Your task to perform on an android device: toggle notifications settings in the gmail app Image 0: 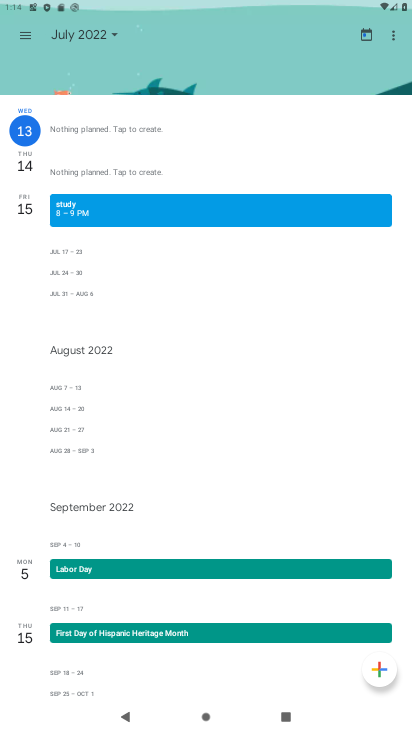
Step 0: press home button
Your task to perform on an android device: toggle notifications settings in the gmail app Image 1: 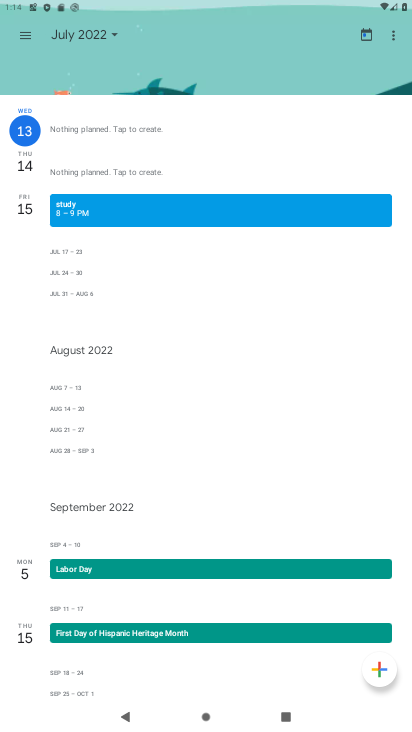
Step 1: drag from (195, 551) to (198, 148)
Your task to perform on an android device: toggle notifications settings in the gmail app Image 2: 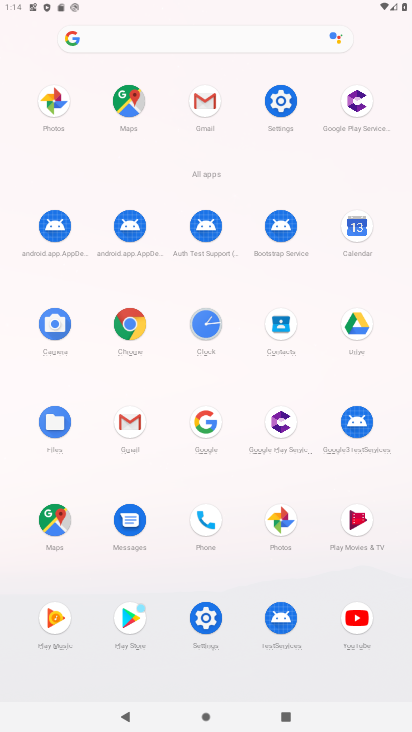
Step 2: drag from (161, 536) to (157, 333)
Your task to perform on an android device: toggle notifications settings in the gmail app Image 3: 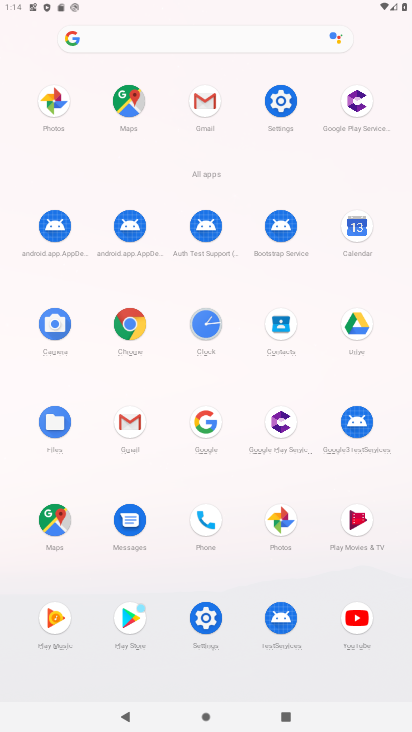
Step 3: click (135, 435)
Your task to perform on an android device: toggle notifications settings in the gmail app Image 4: 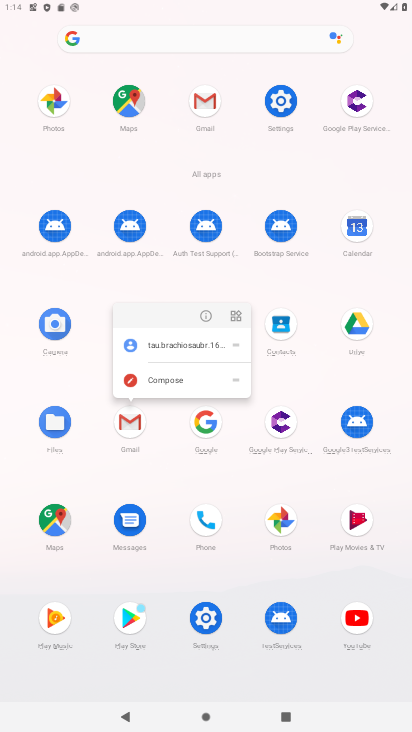
Step 4: click (202, 311)
Your task to perform on an android device: toggle notifications settings in the gmail app Image 5: 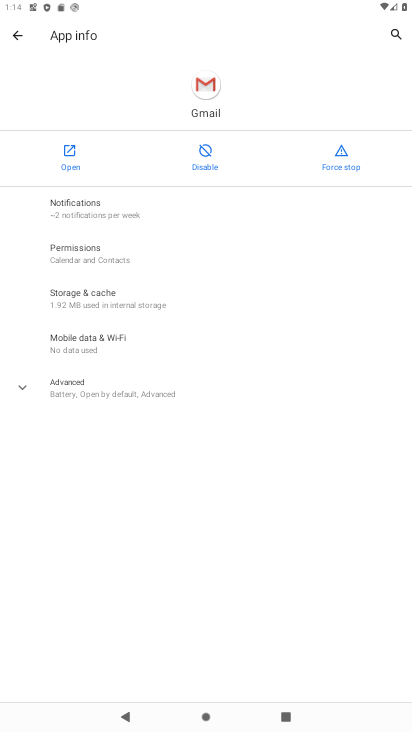
Step 5: click (78, 156)
Your task to perform on an android device: toggle notifications settings in the gmail app Image 6: 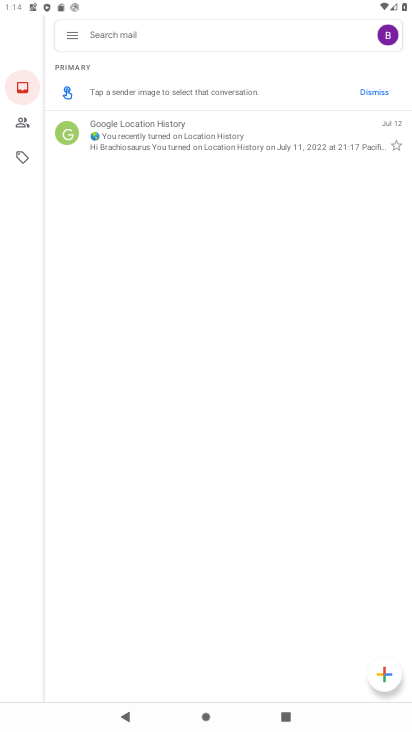
Step 6: drag from (188, 455) to (185, 216)
Your task to perform on an android device: toggle notifications settings in the gmail app Image 7: 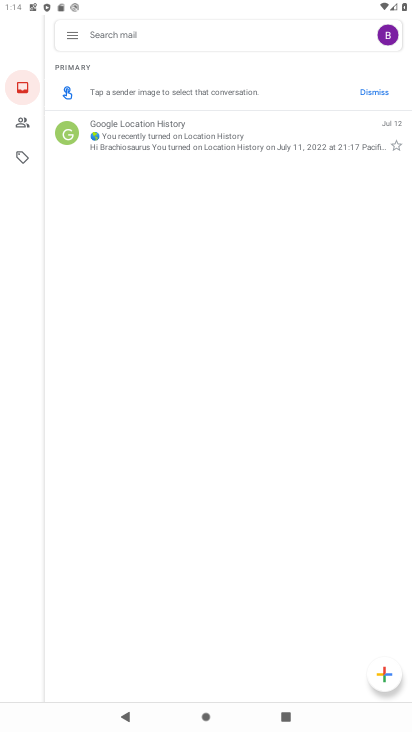
Step 7: click (67, 32)
Your task to perform on an android device: toggle notifications settings in the gmail app Image 8: 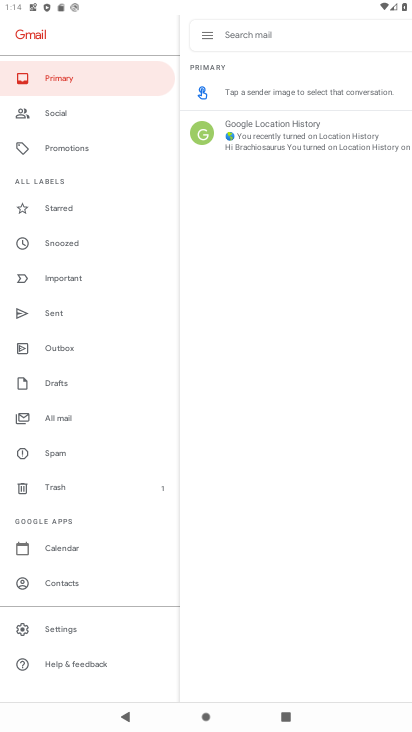
Step 8: click (52, 631)
Your task to perform on an android device: toggle notifications settings in the gmail app Image 9: 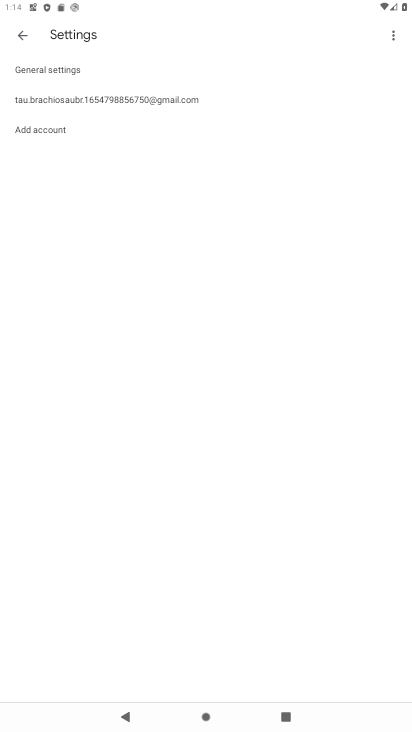
Step 9: drag from (172, 614) to (221, 279)
Your task to perform on an android device: toggle notifications settings in the gmail app Image 10: 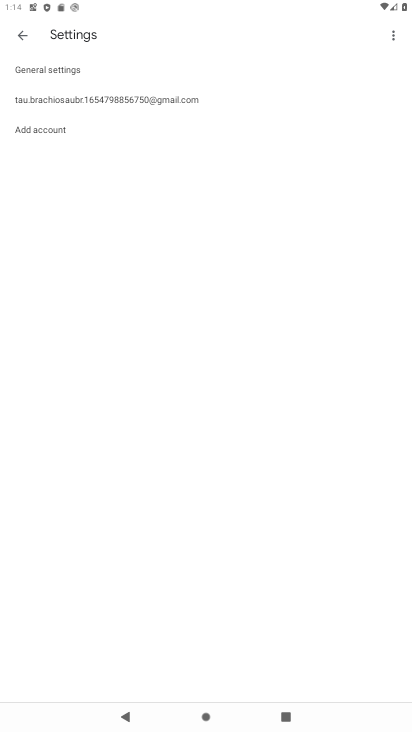
Step 10: drag from (135, 551) to (174, 329)
Your task to perform on an android device: toggle notifications settings in the gmail app Image 11: 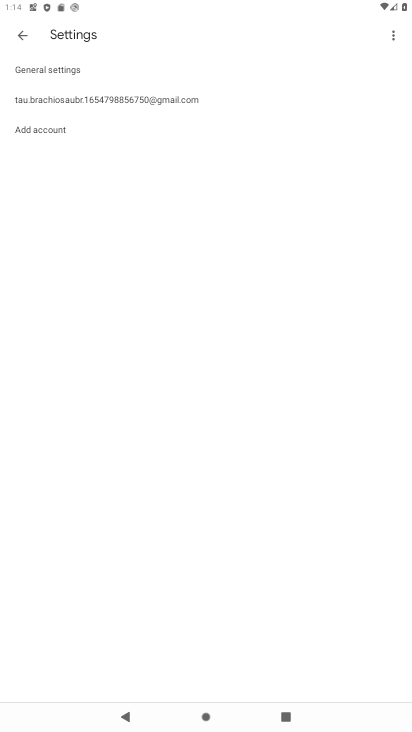
Step 11: click (140, 100)
Your task to perform on an android device: toggle notifications settings in the gmail app Image 12: 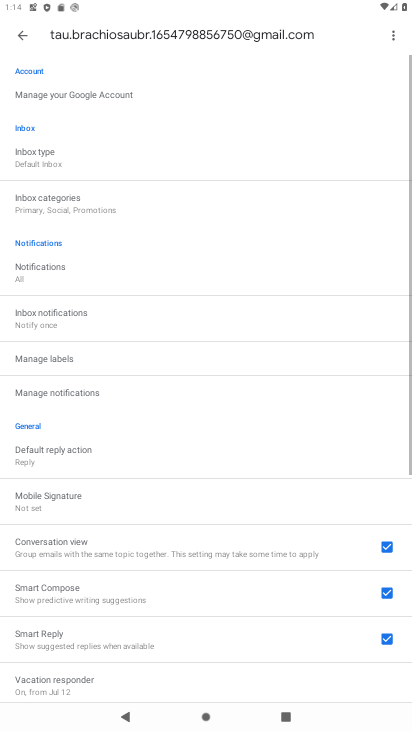
Step 12: drag from (177, 503) to (210, 158)
Your task to perform on an android device: toggle notifications settings in the gmail app Image 13: 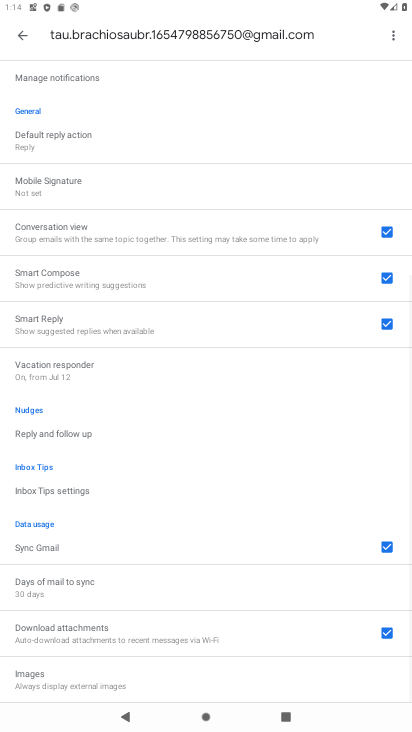
Step 13: drag from (176, 189) to (191, 484)
Your task to perform on an android device: toggle notifications settings in the gmail app Image 14: 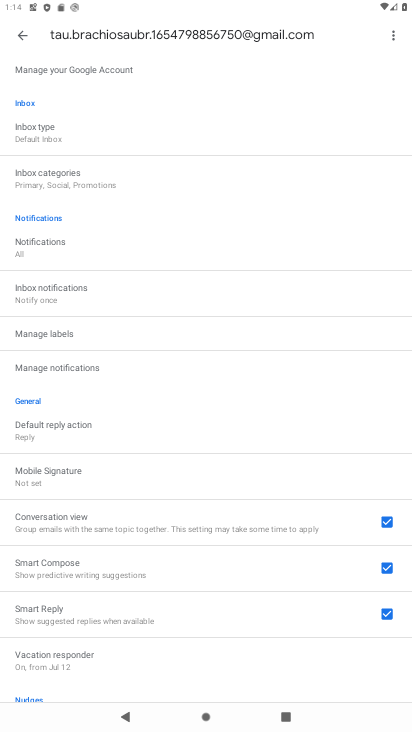
Step 14: click (79, 364)
Your task to perform on an android device: toggle notifications settings in the gmail app Image 15: 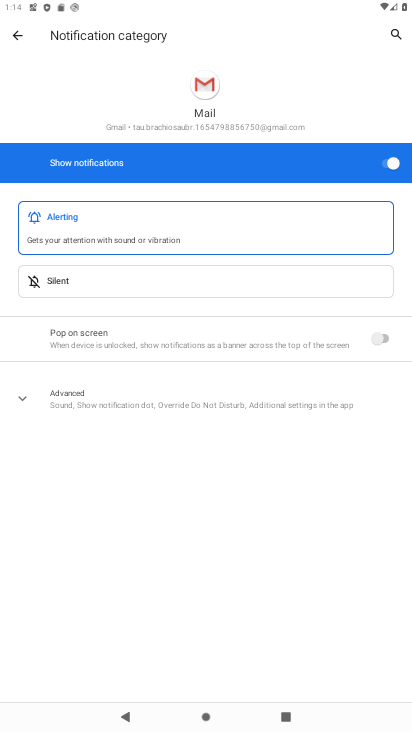
Step 15: drag from (209, 456) to (256, 131)
Your task to perform on an android device: toggle notifications settings in the gmail app Image 16: 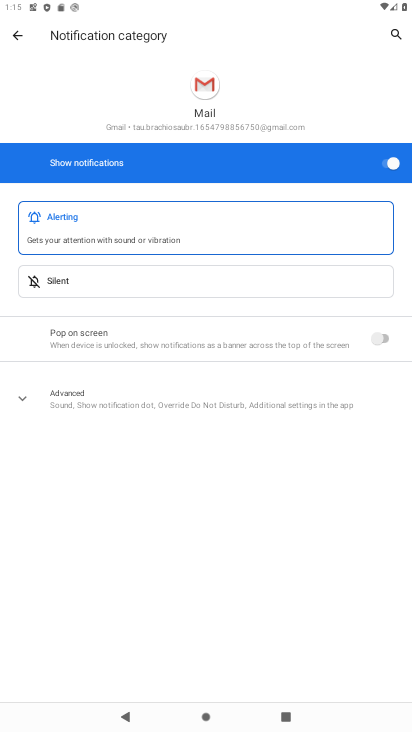
Step 16: drag from (214, 103) to (226, 418)
Your task to perform on an android device: toggle notifications settings in the gmail app Image 17: 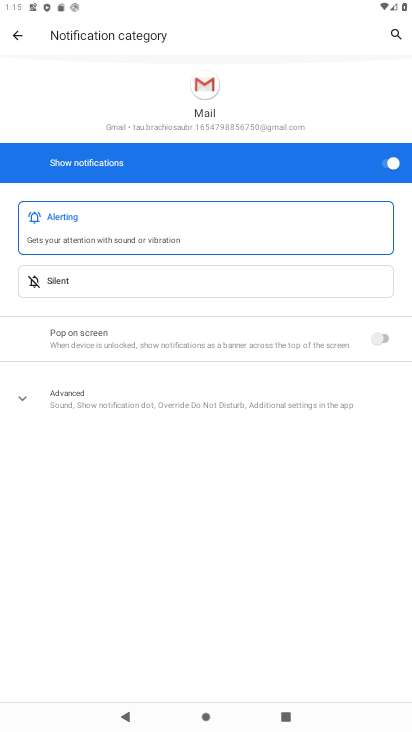
Step 17: click (79, 407)
Your task to perform on an android device: toggle notifications settings in the gmail app Image 18: 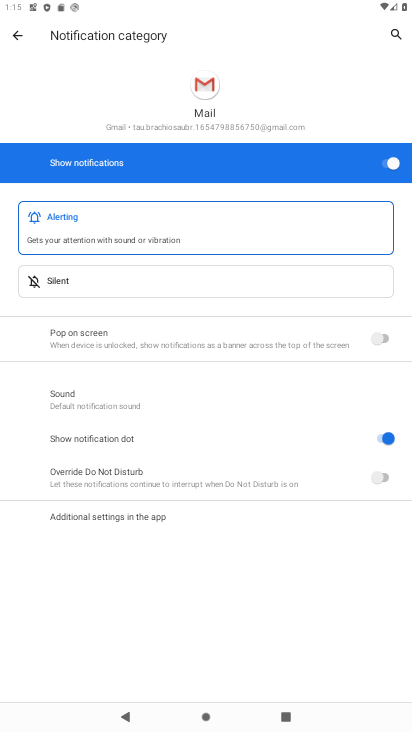
Step 18: drag from (166, 520) to (186, 309)
Your task to perform on an android device: toggle notifications settings in the gmail app Image 19: 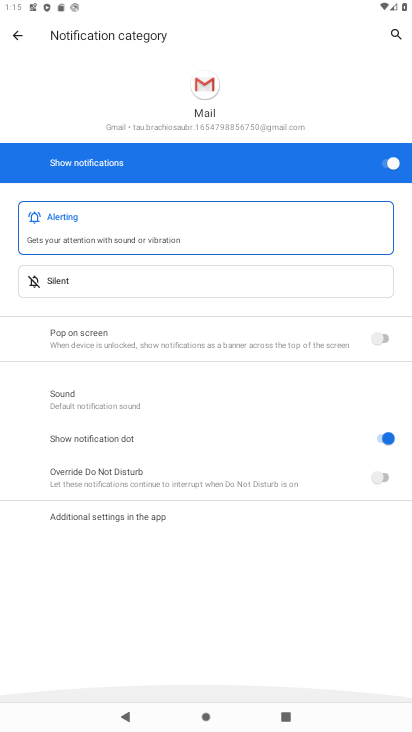
Step 19: drag from (218, 206) to (209, 583)
Your task to perform on an android device: toggle notifications settings in the gmail app Image 20: 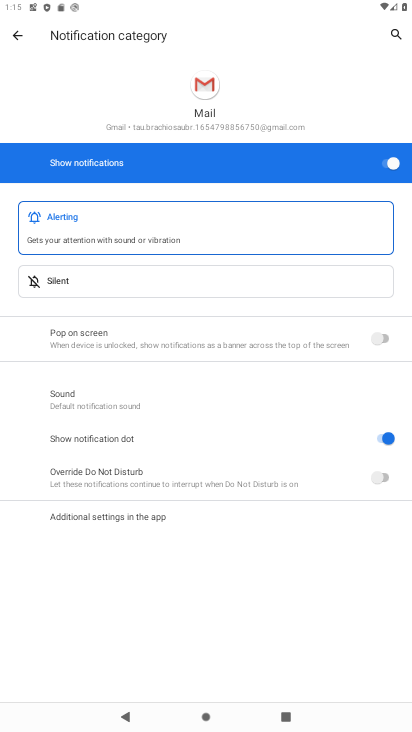
Step 20: click (385, 171)
Your task to perform on an android device: toggle notifications settings in the gmail app Image 21: 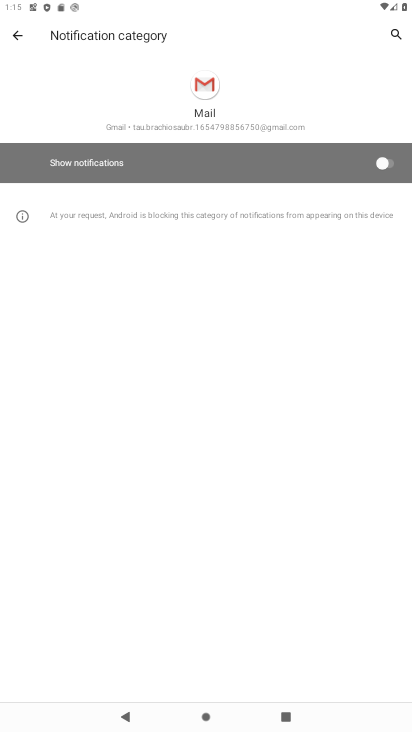
Step 21: task complete